Your task to perform on an android device: Open location settings Image 0: 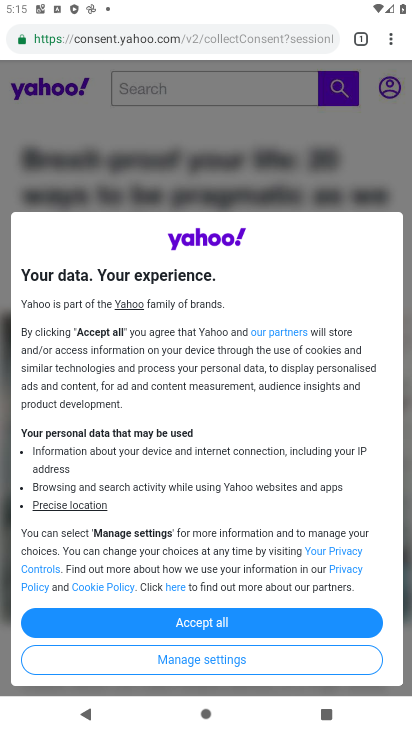
Step 0: press home button
Your task to perform on an android device: Open location settings Image 1: 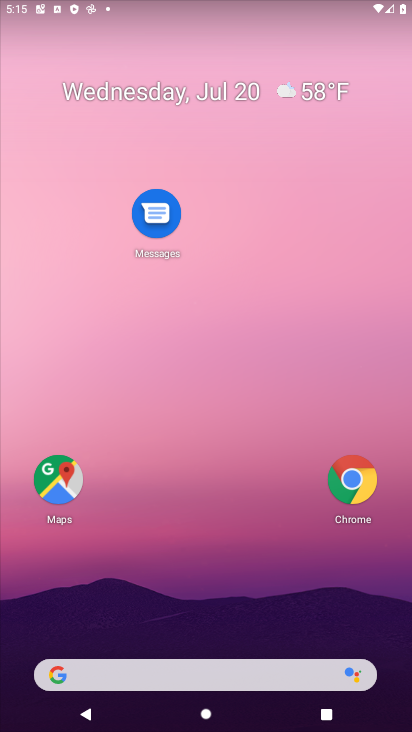
Step 1: drag from (206, 601) to (214, 242)
Your task to perform on an android device: Open location settings Image 2: 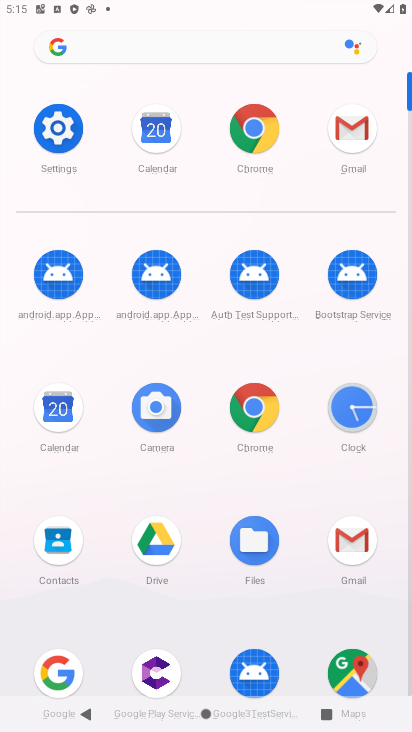
Step 2: click (61, 139)
Your task to perform on an android device: Open location settings Image 3: 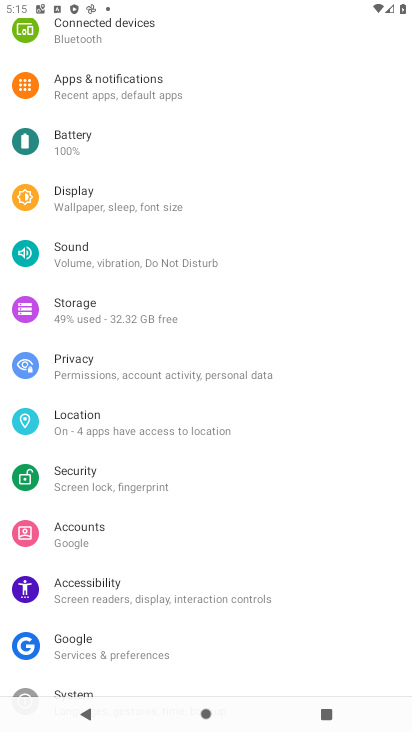
Step 3: click (63, 430)
Your task to perform on an android device: Open location settings Image 4: 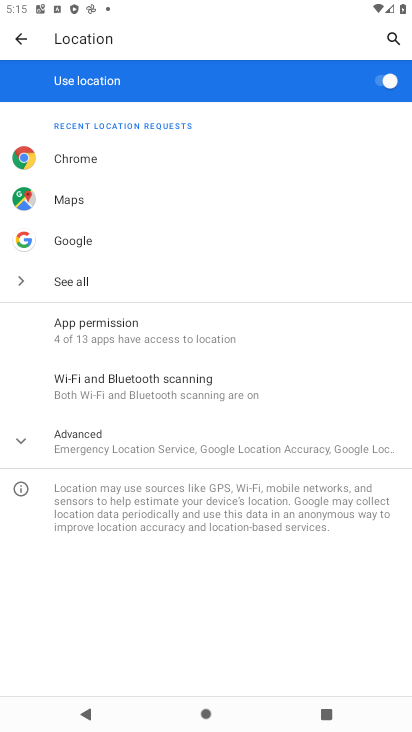
Step 4: task complete